Your task to perform on an android device: Open network settings Image 0: 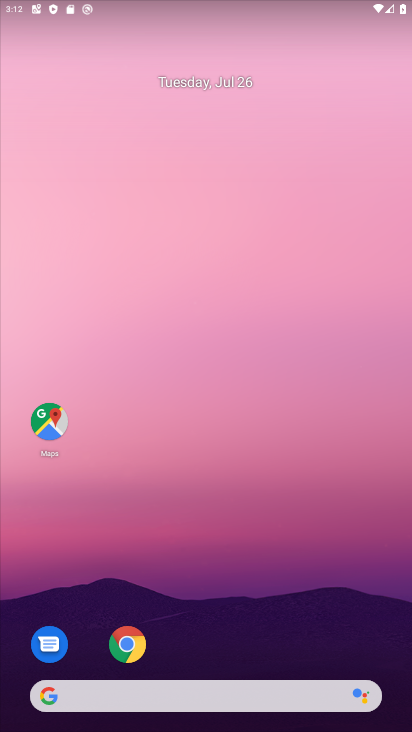
Step 0: drag from (259, 687) to (267, 234)
Your task to perform on an android device: Open network settings Image 1: 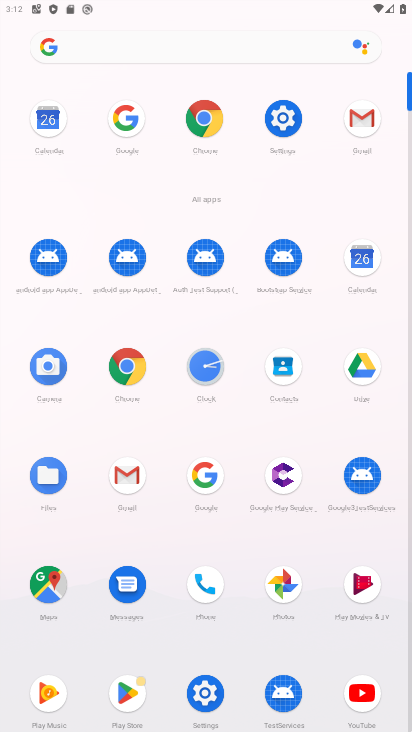
Step 1: click (286, 121)
Your task to perform on an android device: Open network settings Image 2: 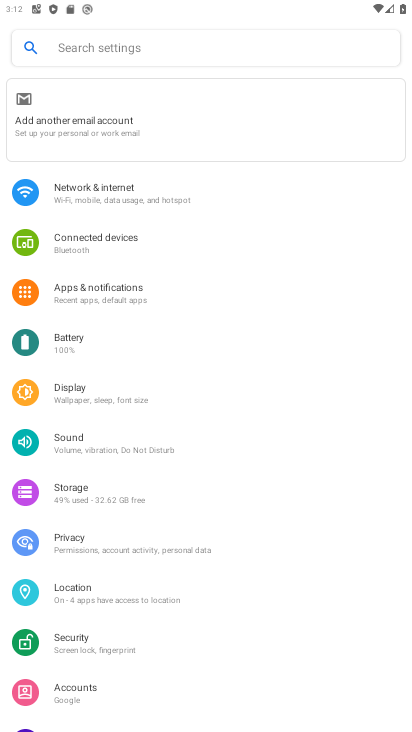
Step 2: click (144, 191)
Your task to perform on an android device: Open network settings Image 3: 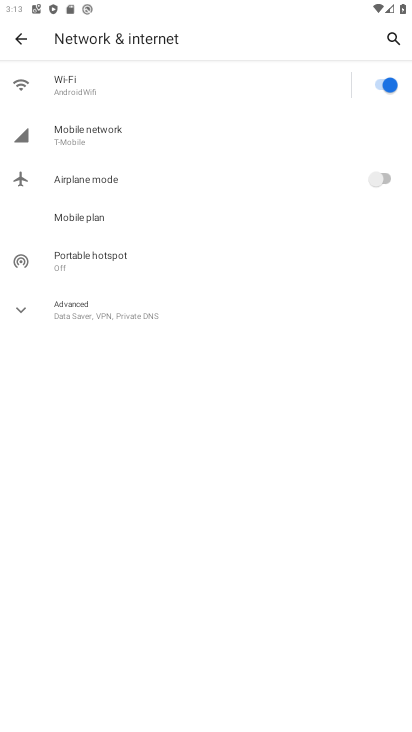
Step 3: click (95, 315)
Your task to perform on an android device: Open network settings Image 4: 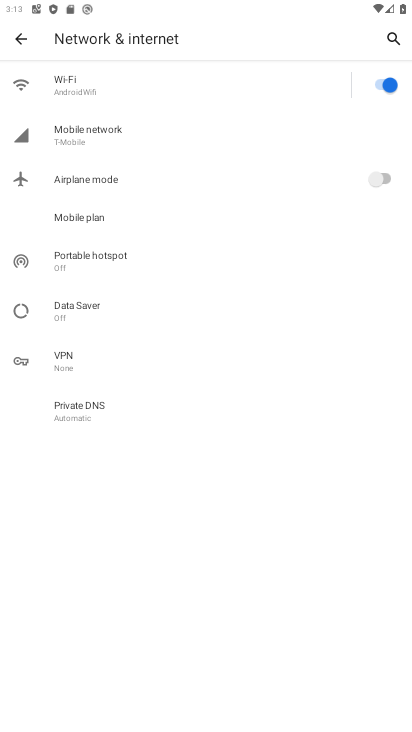
Step 4: click (75, 137)
Your task to perform on an android device: Open network settings Image 5: 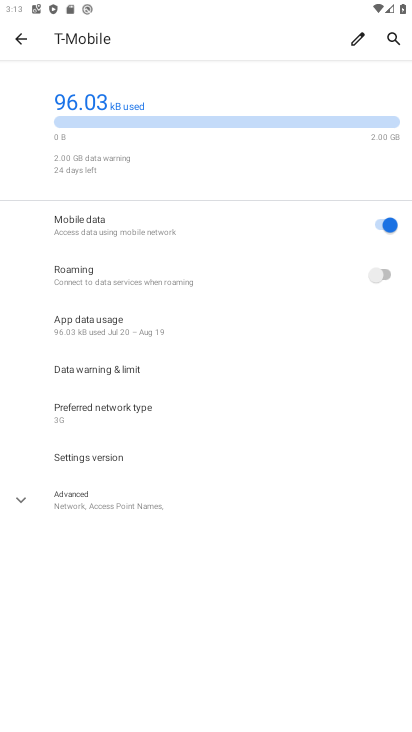
Step 5: click (64, 492)
Your task to perform on an android device: Open network settings Image 6: 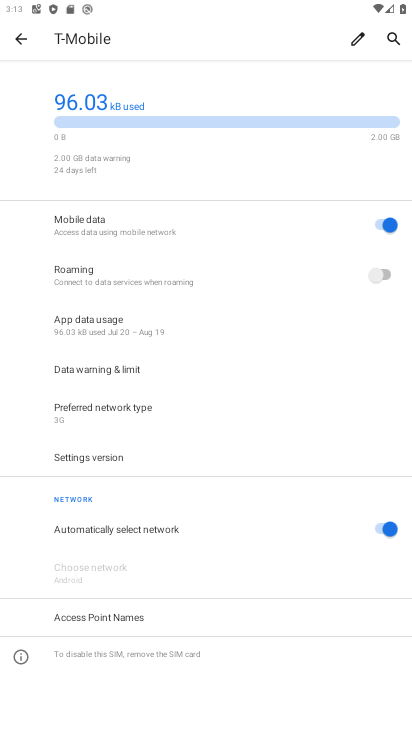
Step 6: task complete